Your task to perform on an android device: choose inbox layout in the gmail app Image 0: 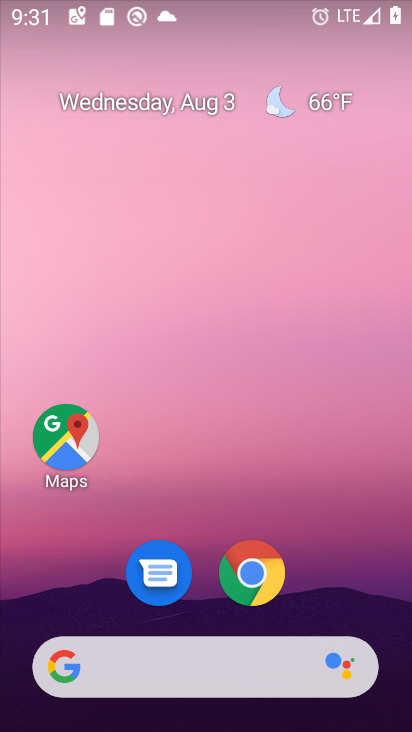
Step 0: drag from (320, 591) to (287, 11)
Your task to perform on an android device: choose inbox layout in the gmail app Image 1: 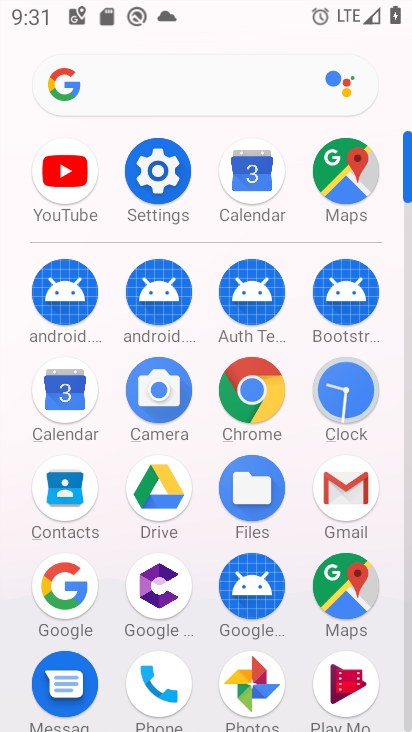
Step 1: click (347, 502)
Your task to perform on an android device: choose inbox layout in the gmail app Image 2: 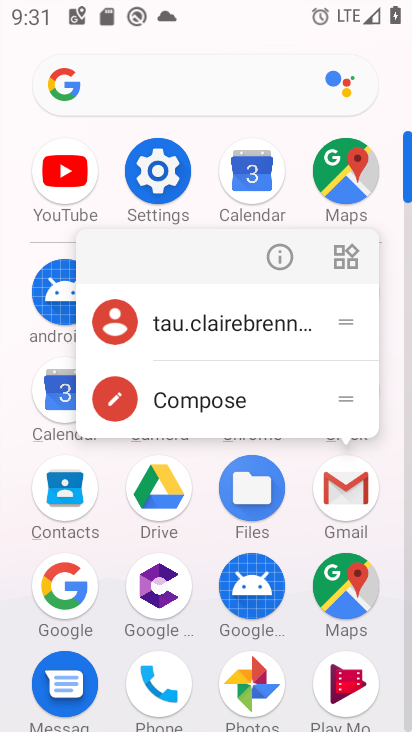
Step 2: click (347, 502)
Your task to perform on an android device: choose inbox layout in the gmail app Image 3: 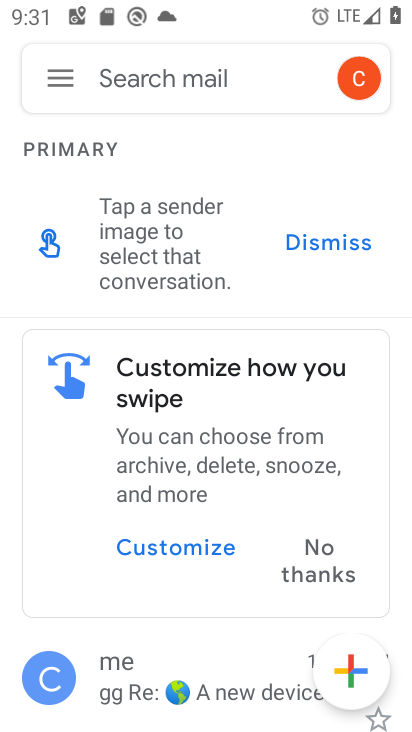
Step 3: click (56, 78)
Your task to perform on an android device: choose inbox layout in the gmail app Image 4: 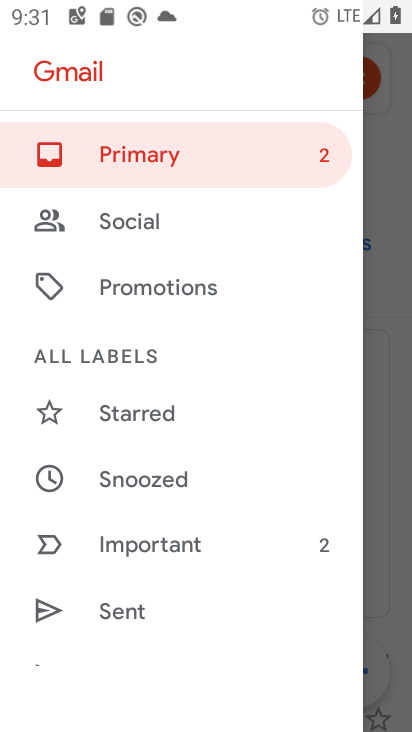
Step 4: drag from (166, 542) to (151, 285)
Your task to perform on an android device: choose inbox layout in the gmail app Image 5: 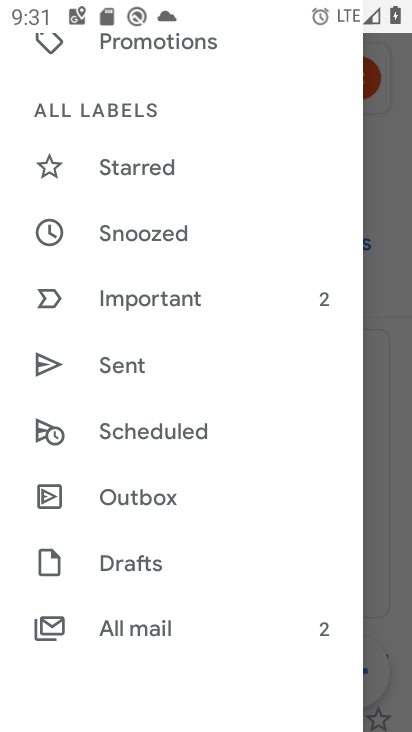
Step 5: drag from (145, 580) to (128, 296)
Your task to perform on an android device: choose inbox layout in the gmail app Image 6: 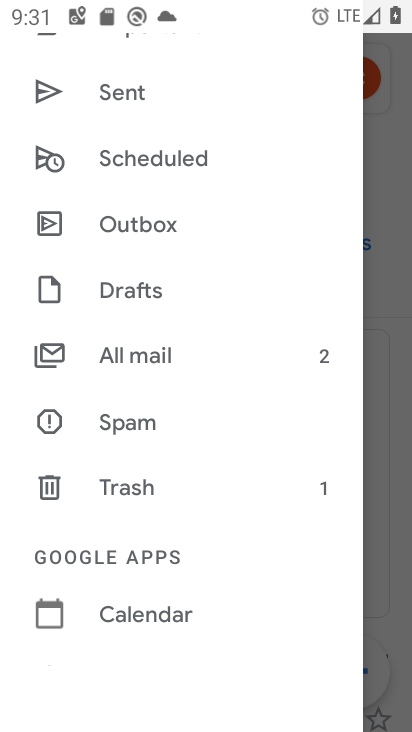
Step 6: drag from (121, 528) to (111, 235)
Your task to perform on an android device: choose inbox layout in the gmail app Image 7: 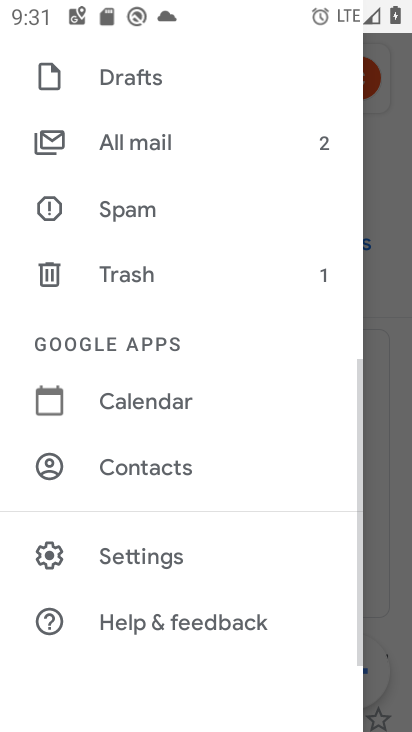
Step 7: click (108, 561)
Your task to perform on an android device: choose inbox layout in the gmail app Image 8: 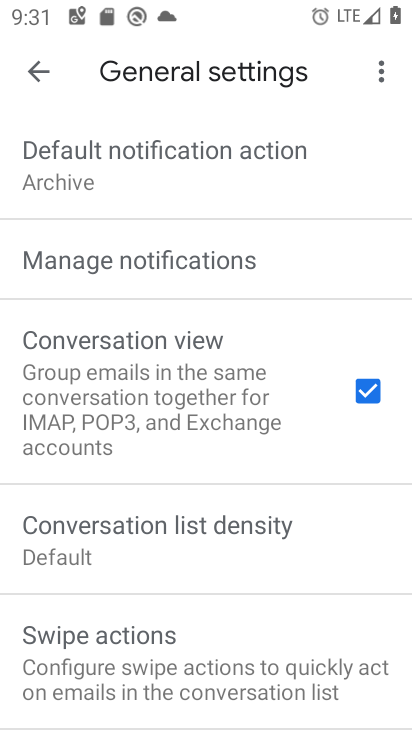
Step 8: click (44, 72)
Your task to perform on an android device: choose inbox layout in the gmail app Image 9: 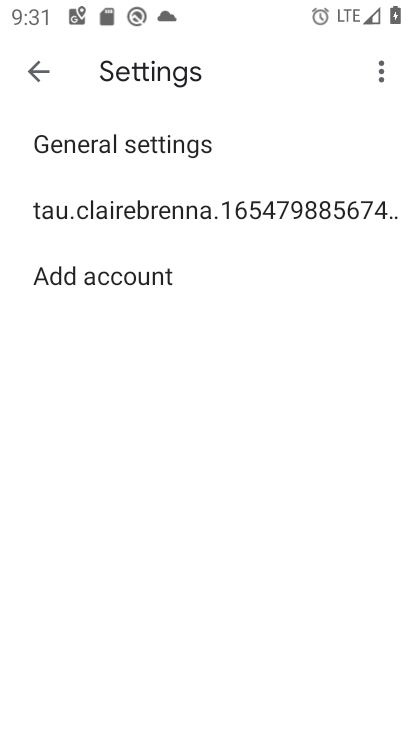
Step 9: click (129, 232)
Your task to perform on an android device: choose inbox layout in the gmail app Image 10: 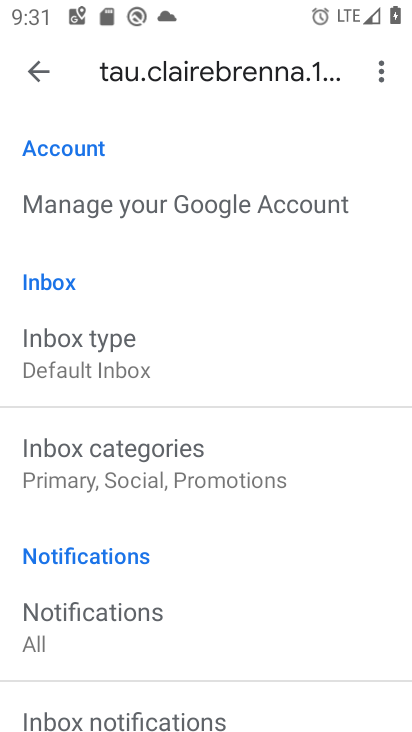
Step 10: click (103, 374)
Your task to perform on an android device: choose inbox layout in the gmail app Image 11: 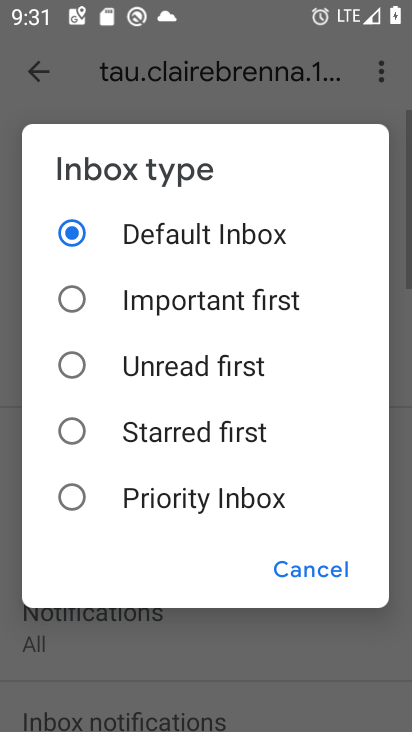
Step 11: click (103, 374)
Your task to perform on an android device: choose inbox layout in the gmail app Image 12: 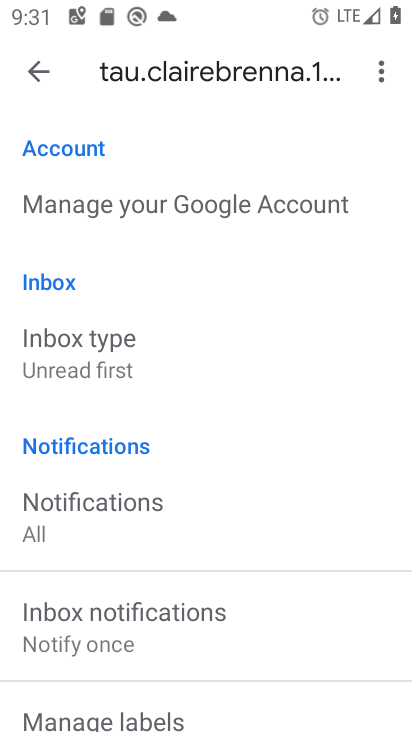
Step 12: task complete